Your task to perform on an android device: change the upload size in google photos Image 0: 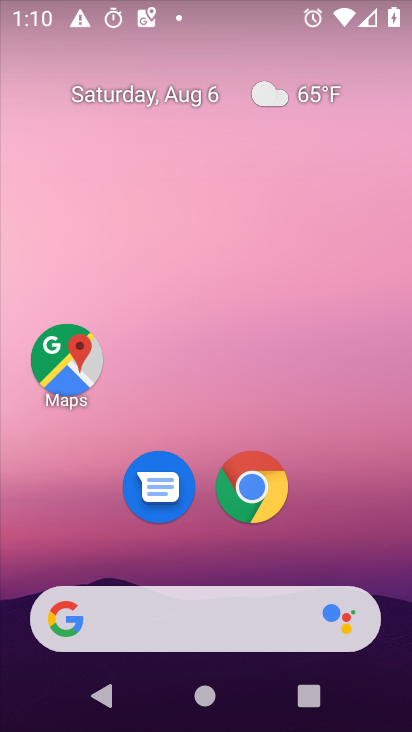
Step 0: drag from (196, 551) to (241, 44)
Your task to perform on an android device: change the upload size in google photos Image 1: 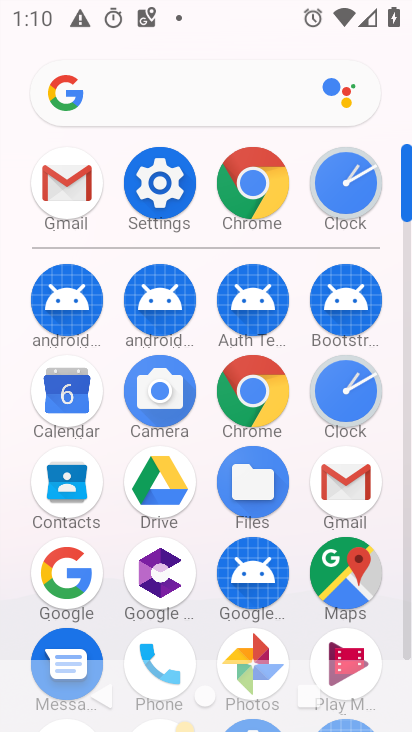
Step 1: click (246, 643)
Your task to perform on an android device: change the upload size in google photos Image 2: 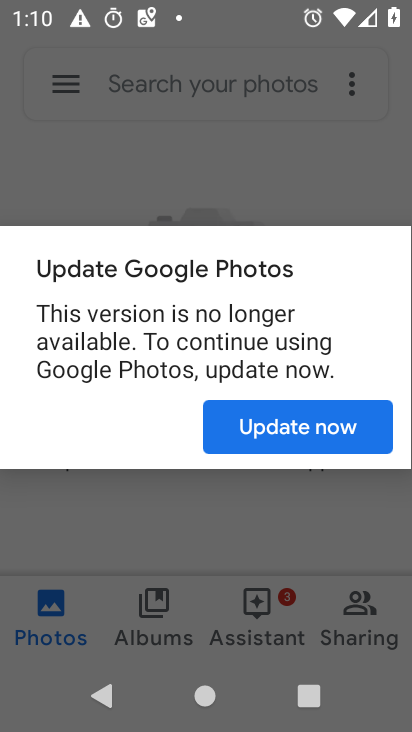
Step 2: click (242, 432)
Your task to perform on an android device: change the upload size in google photos Image 3: 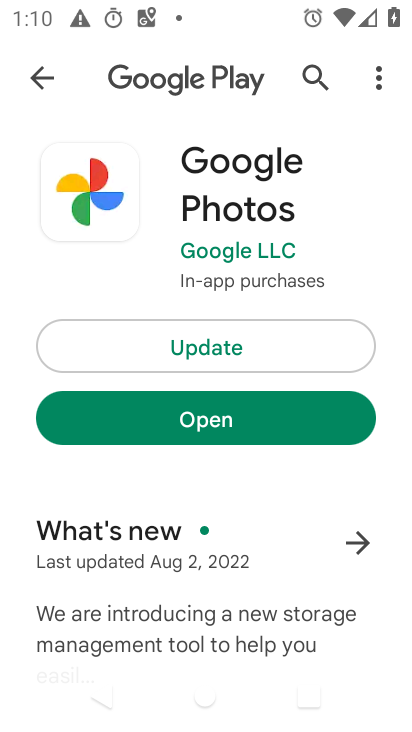
Step 3: click (209, 425)
Your task to perform on an android device: change the upload size in google photos Image 4: 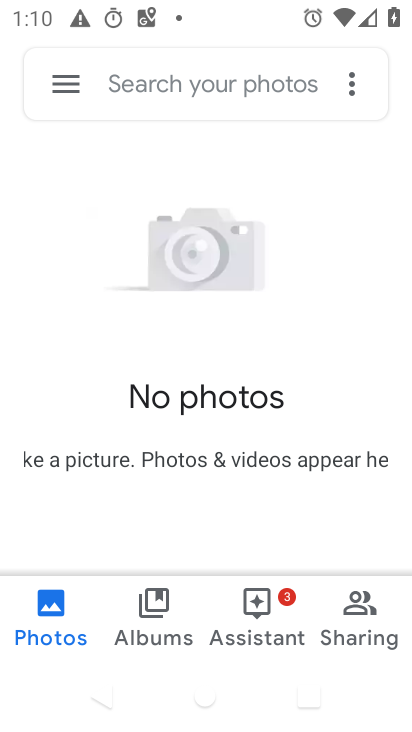
Step 4: click (66, 99)
Your task to perform on an android device: change the upload size in google photos Image 5: 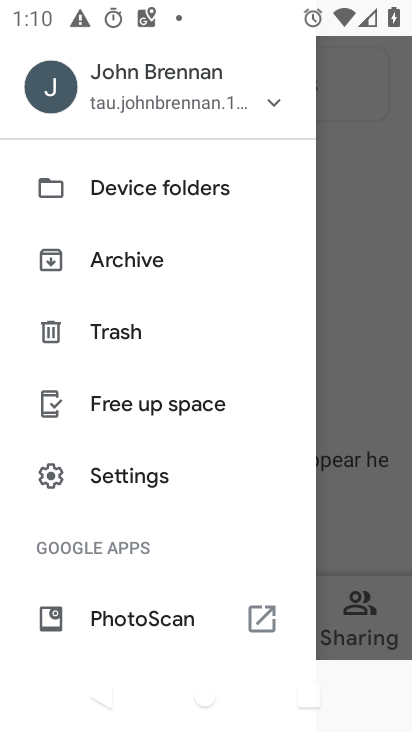
Step 5: click (112, 476)
Your task to perform on an android device: change the upload size in google photos Image 6: 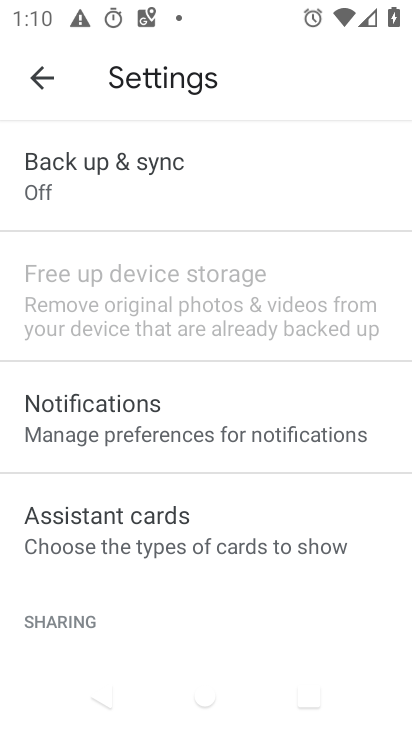
Step 6: drag from (290, 268) to (238, 665)
Your task to perform on an android device: change the upload size in google photos Image 7: 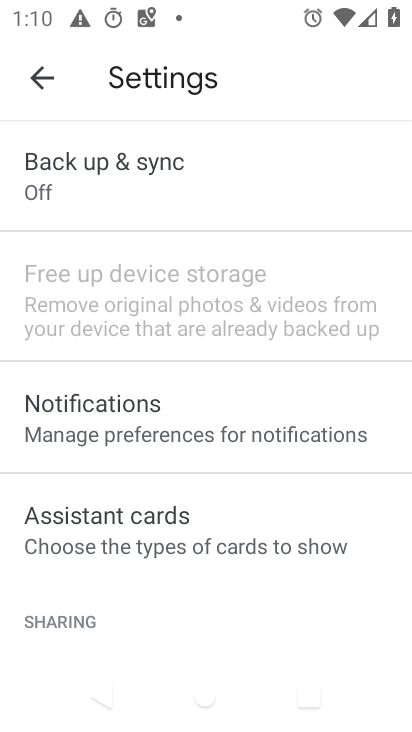
Step 7: drag from (240, 633) to (213, 731)
Your task to perform on an android device: change the upload size in google photos Image 8: 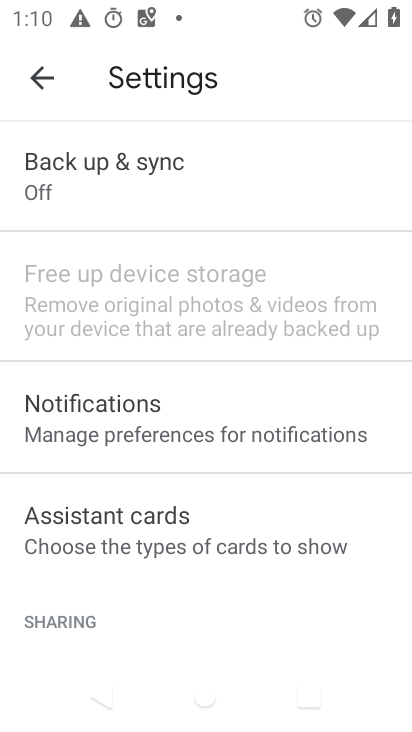
Step 8: click (108, 175)
Your task to perform on an android device: change the upload size in google photos Image 9: 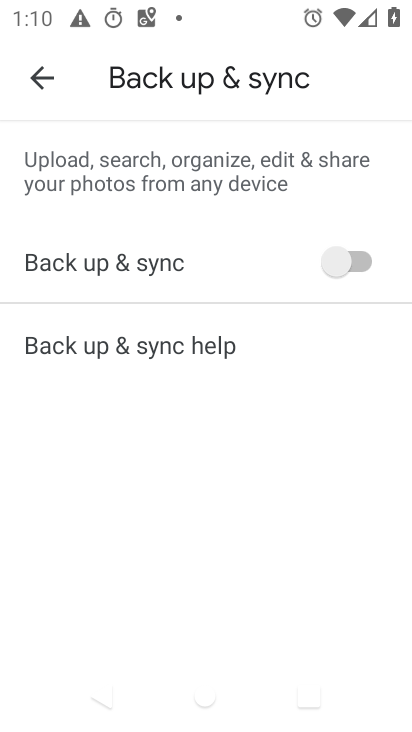
Step 9: click (348, 257)
Your task to perform on an android device: change the upload size in google photos Image 10: 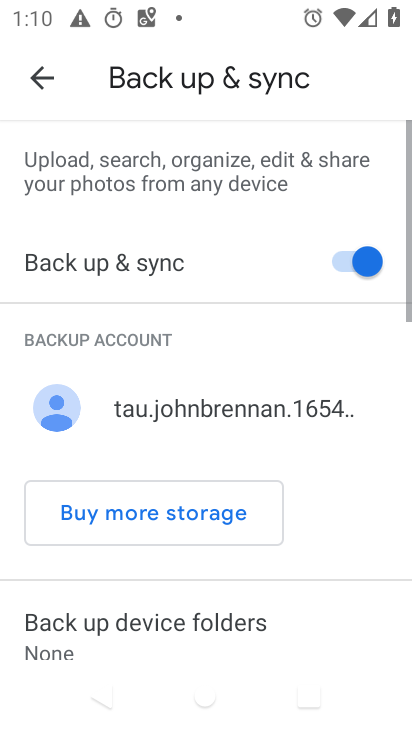
Step 10: drag from (157, 632) to (222, 271)
Your task to perform on an android device: change the upload size in google photos Image 11: 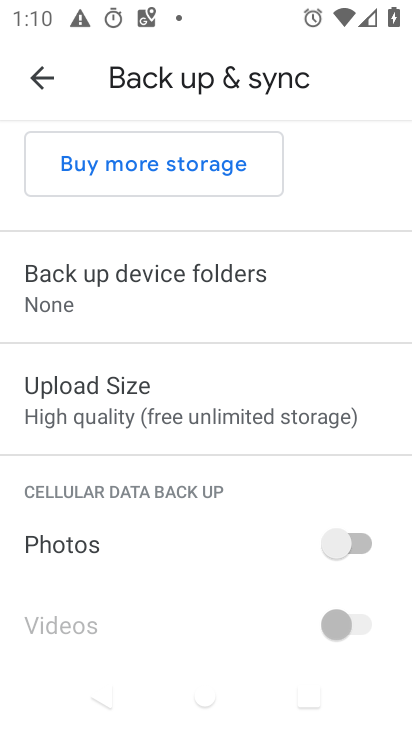
Step 11: click (156, 393)
Your task to perform on an android device: change the upload size in google photos Image 12: 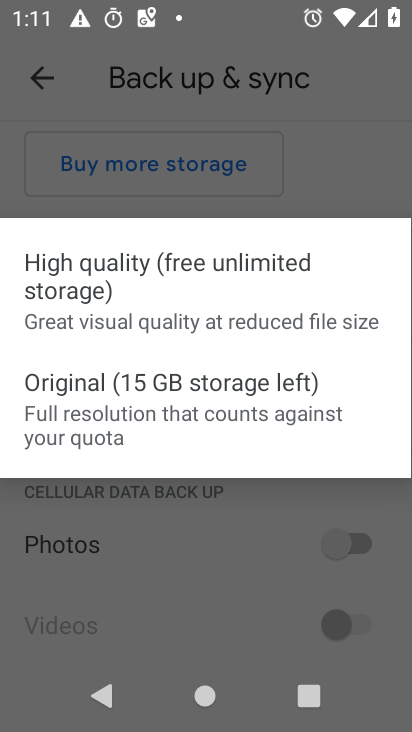
Step 12: click (124, 412)
Your task to perform on an android device: change the upload size in google photos Image 13: 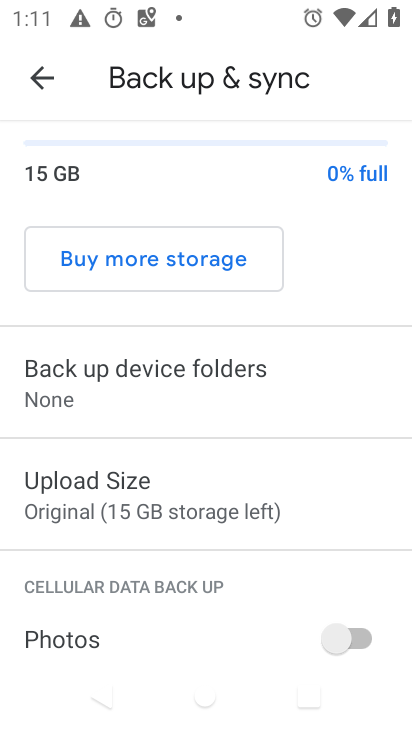
Step 13: task complete